Your task to perform on an android device: turn off picture-in-picture Image 0: 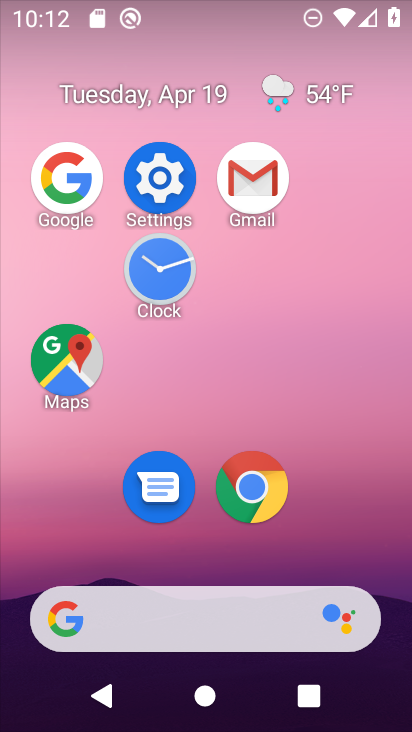
Step 0: click (256, 483)
Your task to perform on an android device: turn off picture-in-picture Image 1: 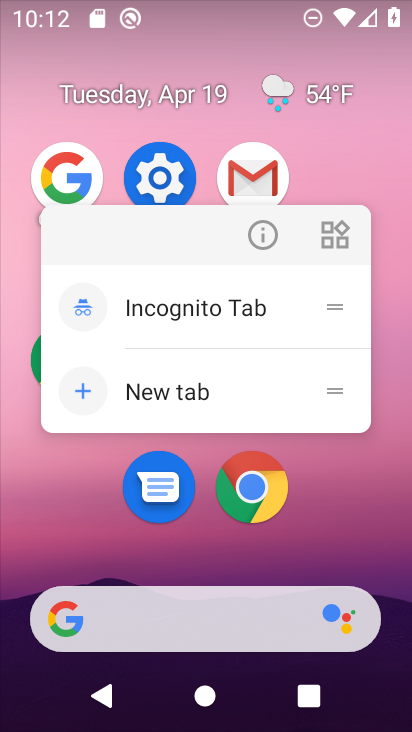
Step 1: click (265, 231)
Your task to perform on an android device: turn off picture-in-picture Image 2: 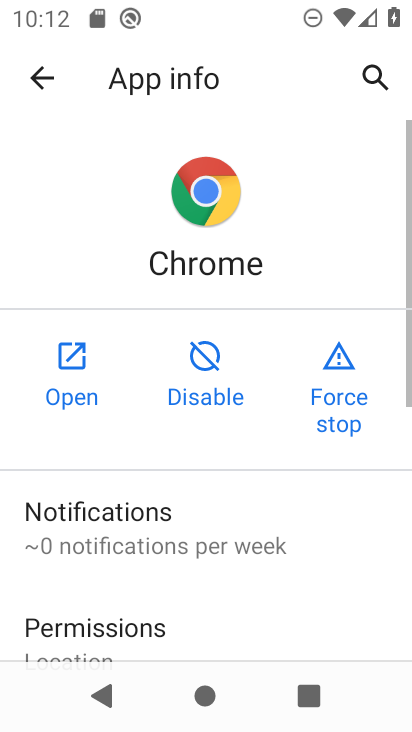
Step 2: drag from (243, 612) to (315, 119)
Your task to perform on an android device: turn off picture-in-picture Image 3: 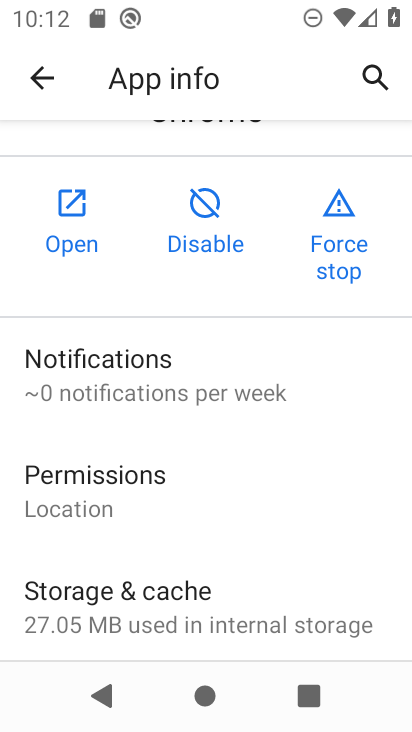
Step 3: drag from (287, 556) to (326, 64)
Your task to perform on an android device: turn off picture-in-picture Image 4: 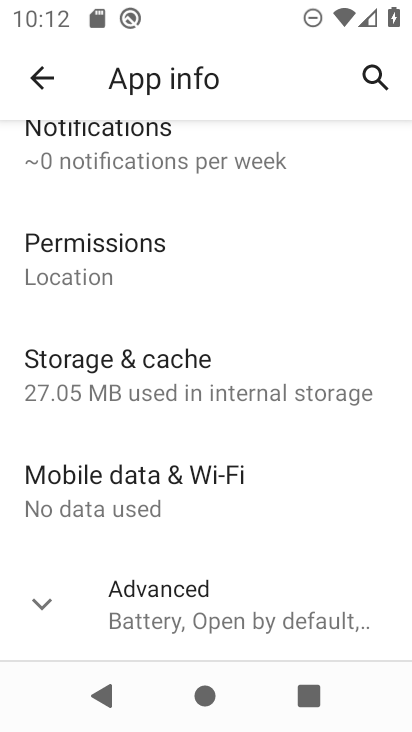
Step 4: drag from (280, 517) to (318, 136)
Your task to perform on an android device: turn off picture-in-picture Image 5: 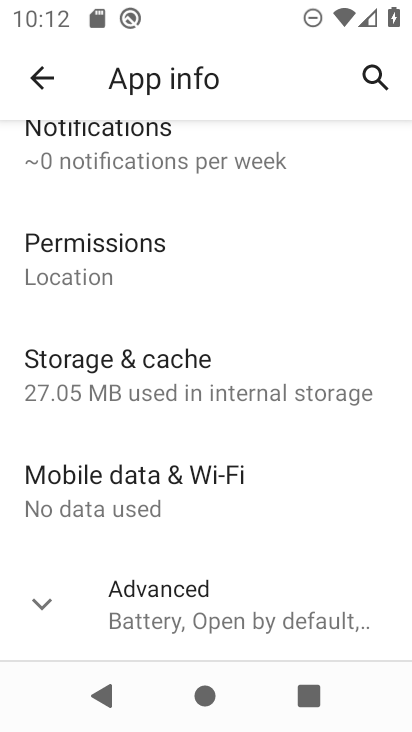
Step 5: drag from (273, 490) to (300, 238)
Your task to perform on an android device: turn off picture-in-picture Image 6: 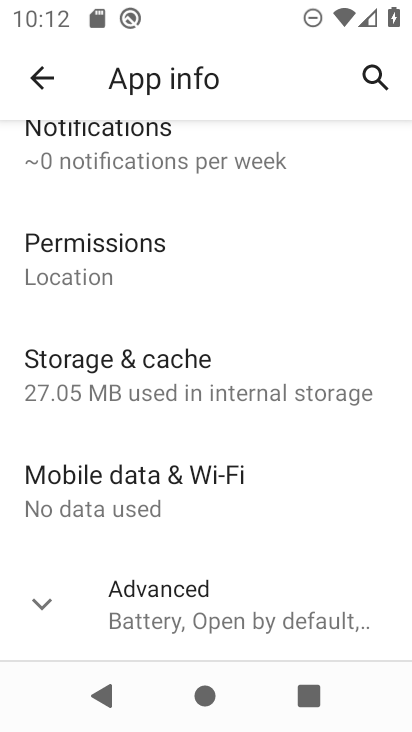
Step 6: click (177, 604)
Your task to perform on an android device: turn off picture-in-picture Image 7: 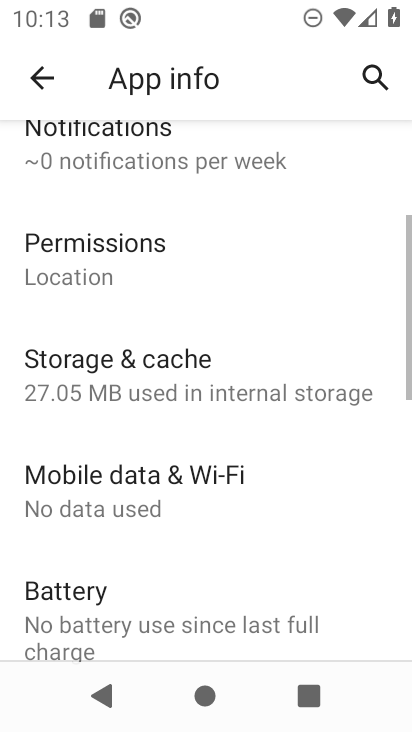
Step 7: drag from (177, 604) to (227, 134)
Your task to perform on an android device: turn off picture-in-picture Image 8: 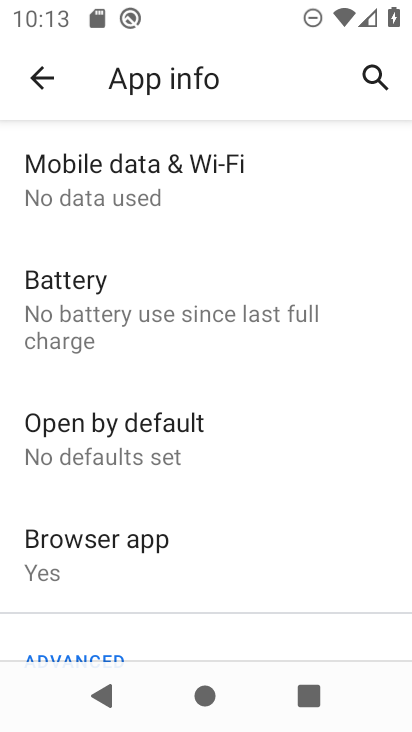
Step 8: drag from (222, 303) to (235, 103)
Your task to perform on an android device: turn off picture-in-picture Image 9: 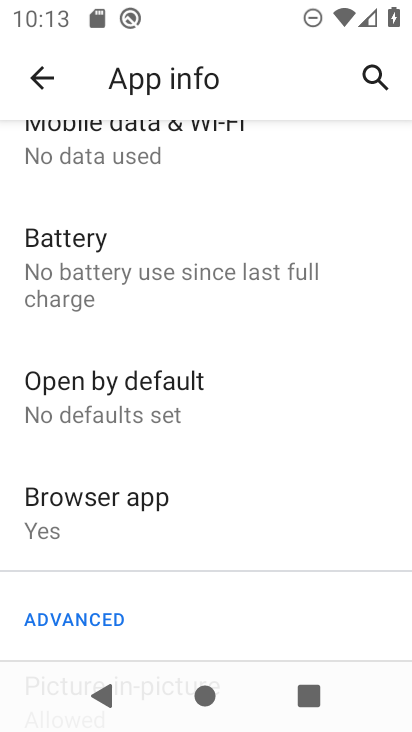
Step 9: drag from (216, 565) to (287, 204)
Your task to perform on an android device: turn off picture-in-picture Image 10: 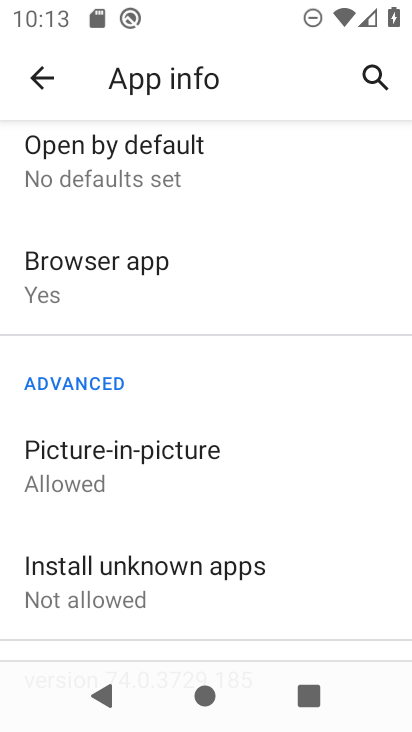
Step 10: click (188, 469)
Your task to perform on an android device: turn off picture-in-picture Image 11: 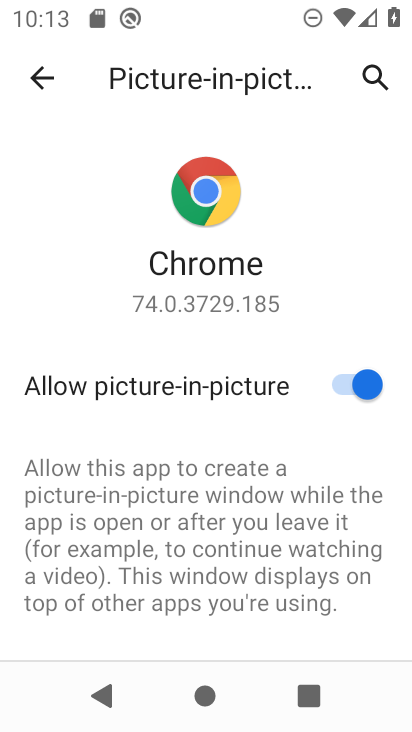
Step 11: click (356, 384)
Your task to perform on an android device: turn off picture-in-picture Image 12: 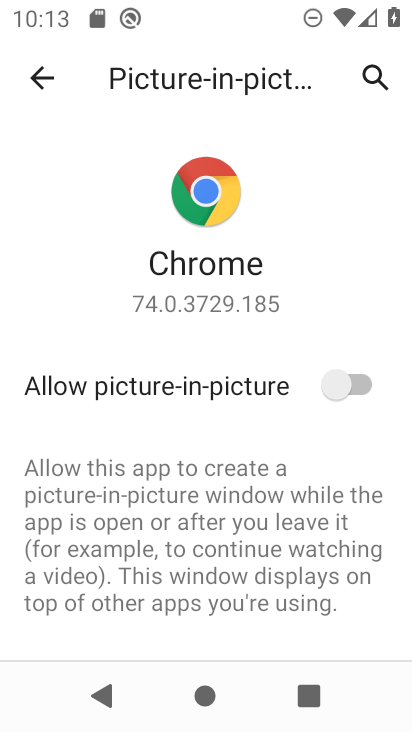
Step 12: task complete